Your task to perform on an android device: turn off location Image 0: 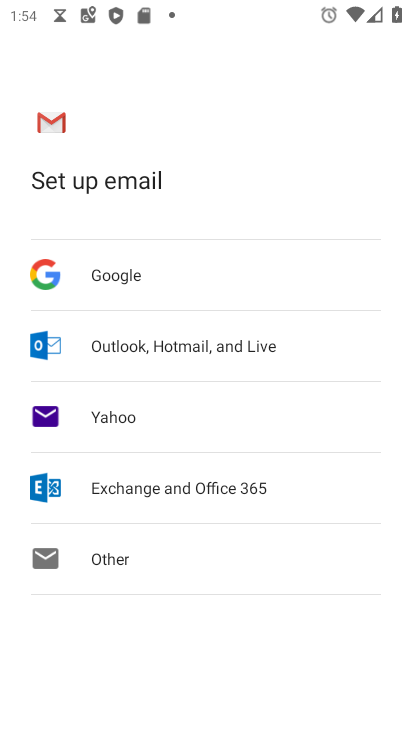
Step 0: press home button
Your task to perform on an android device: turn off location Image 1: 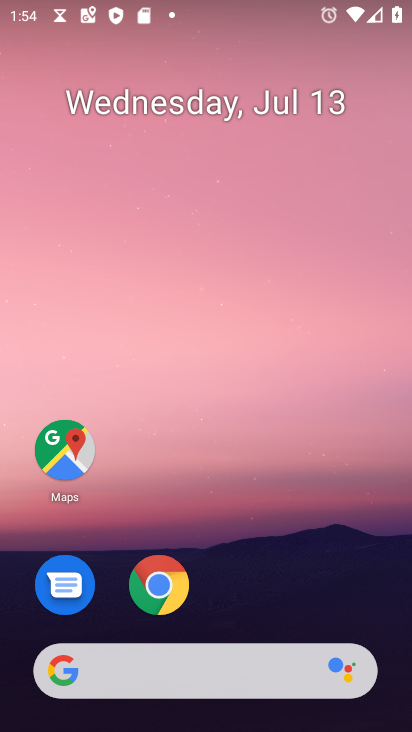
Step 1: drag from (190, 685) to (224, 84)
Your task to perform on an android device: turn off location Image 2: 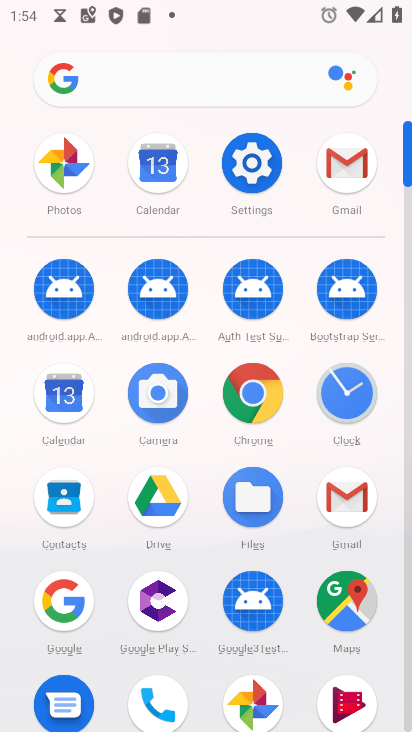
Step 2: click (241, 147)
Your task to perform on an android device: turn off location Image 3: 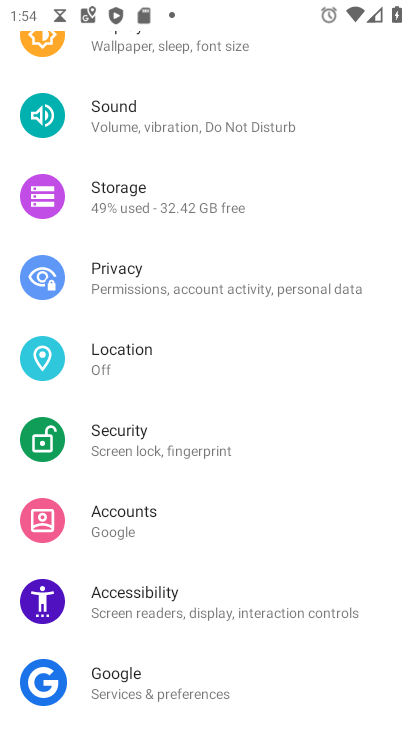
Step 3: click (133, 350)
Your task to perform on an android device: turn off location Image 4: 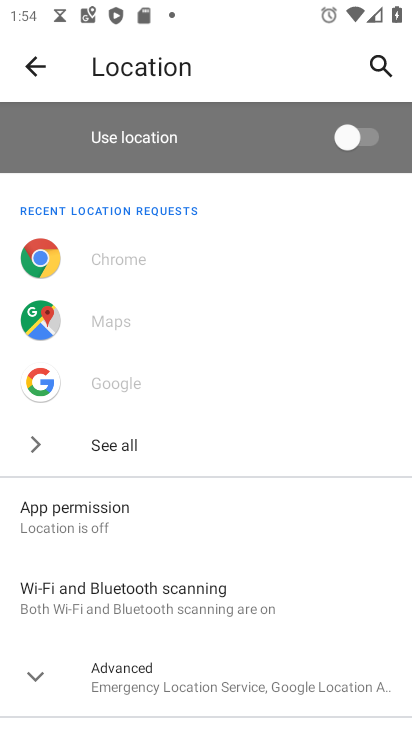
Step 4: task complete